Your task to perform on an android device: toggle notifications settings in the gmail app Image 0: 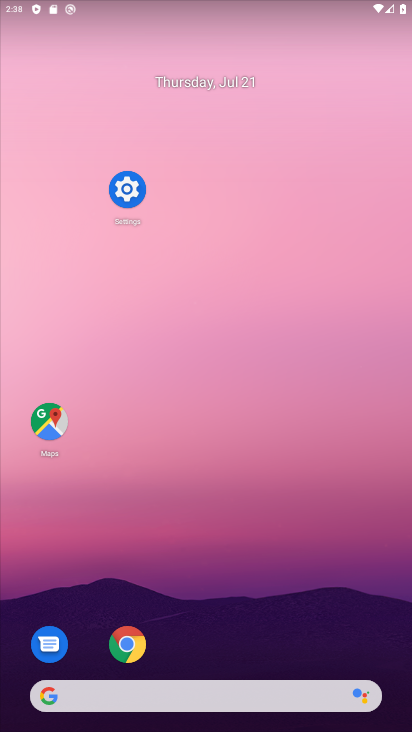
Step 0: drag from (214, 643) to (218, 249)
Your task to perform on an android device: toggle notifications settings in the gmail app Image 1: 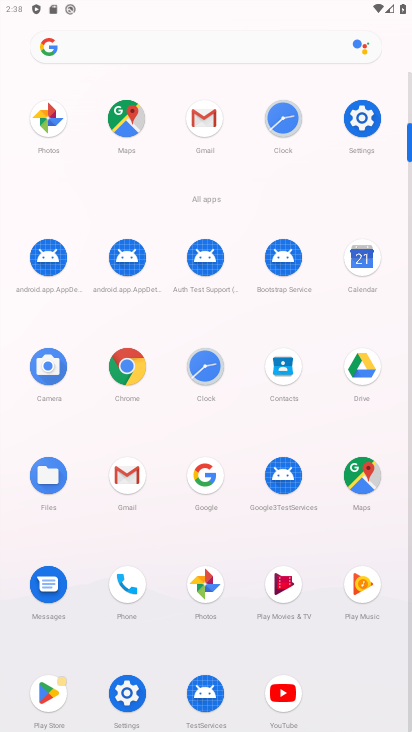
Step 1: click (141, 471)
Your task to perform on an android device: toggle notifications settings in the gmail app Image 2: 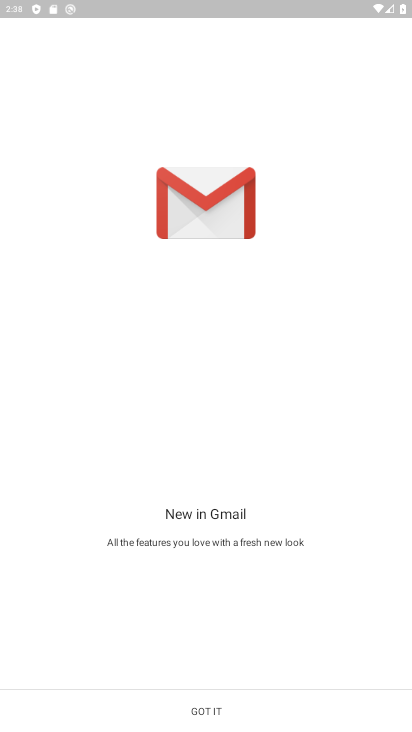
Step 2: click (196, 700)
Your task to perform on an android device: toggle notifications settings in the gmail app Image 3: 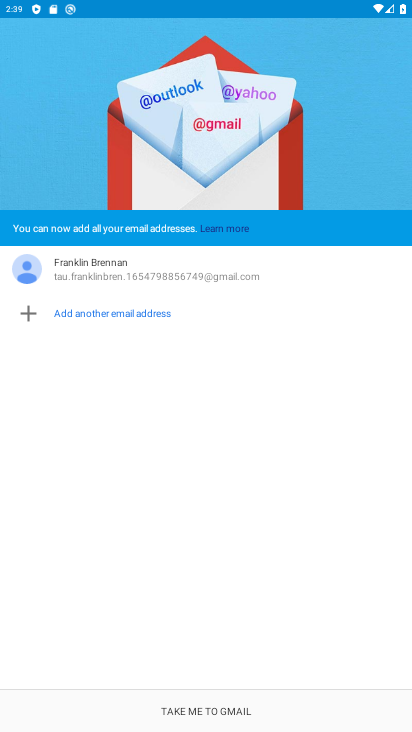
Step 3: click (172, 708)
Your task to perform on an android device: toggle notifications settings in the gmail app Image 4: 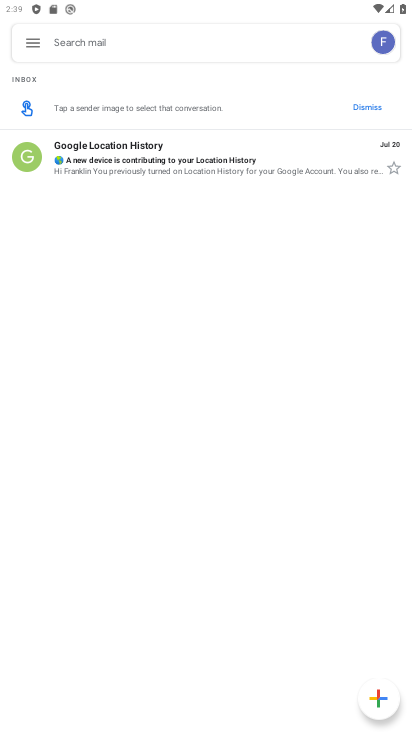
Step 4: click (32, 41)
Your task to perform on an android device: toggle notifications settings in the gmail app Image 5: 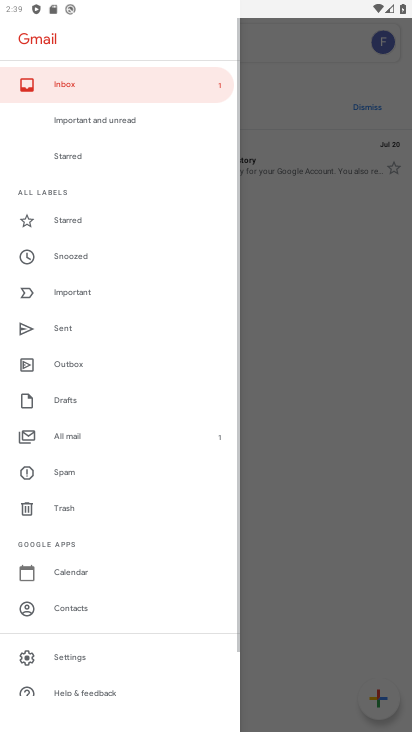
Step 5: click (87, 651)
Your task to perform on an android device: toggle notifications settings in the gmail app Image 6: 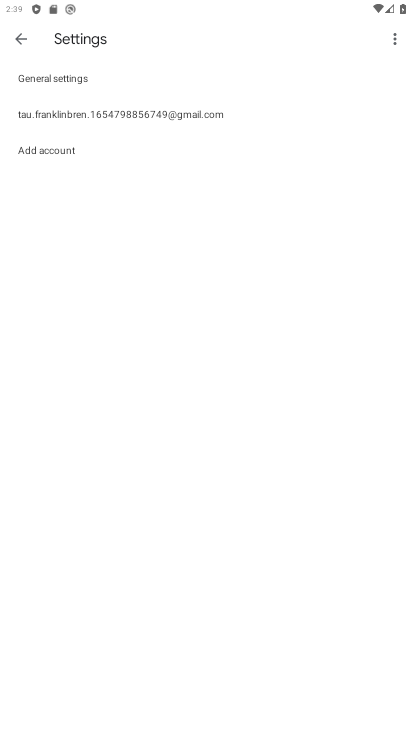
Step 6: click (158, 112)
Your task to perform on an android device: toggle notifications settings in the gmail app Image 7: 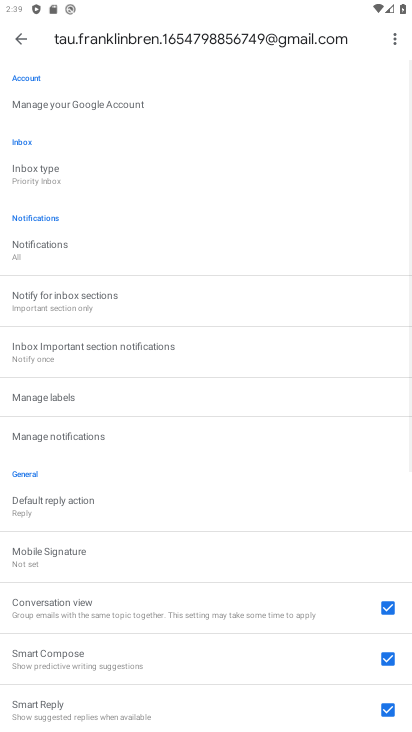
Step 7: click (82, 249)
Your task to perform on an android device: toggle notifications settings in the gmail app Image 8: 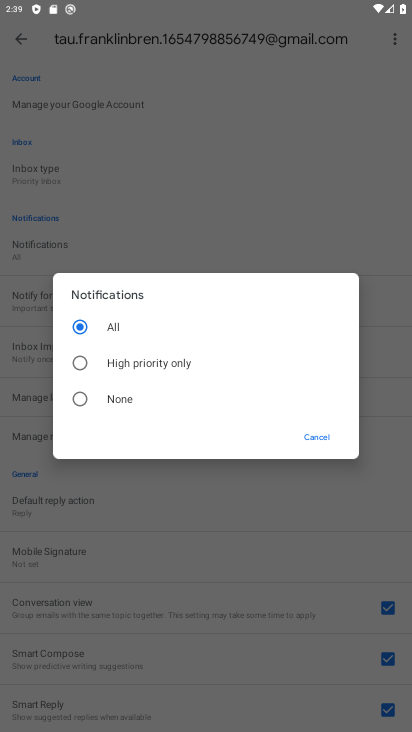
Step 8: click (165, 361)
Your task to perform on an android device: toggle notifications settings in the gmail app Image 9: 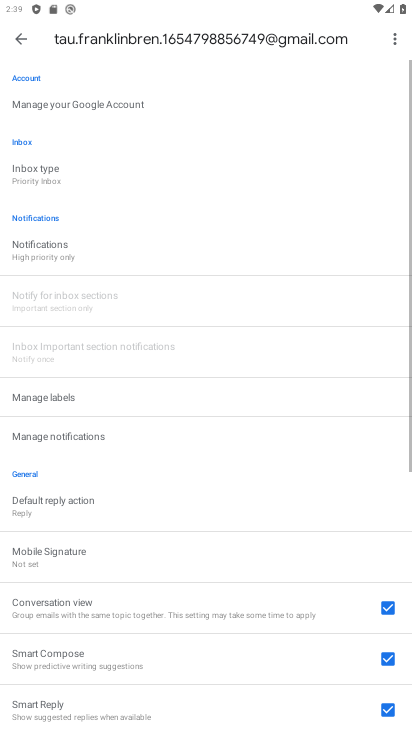
Step 9: task complete